Your task to perform on an android device: Open the calendar and show me this week's events? Image 0: 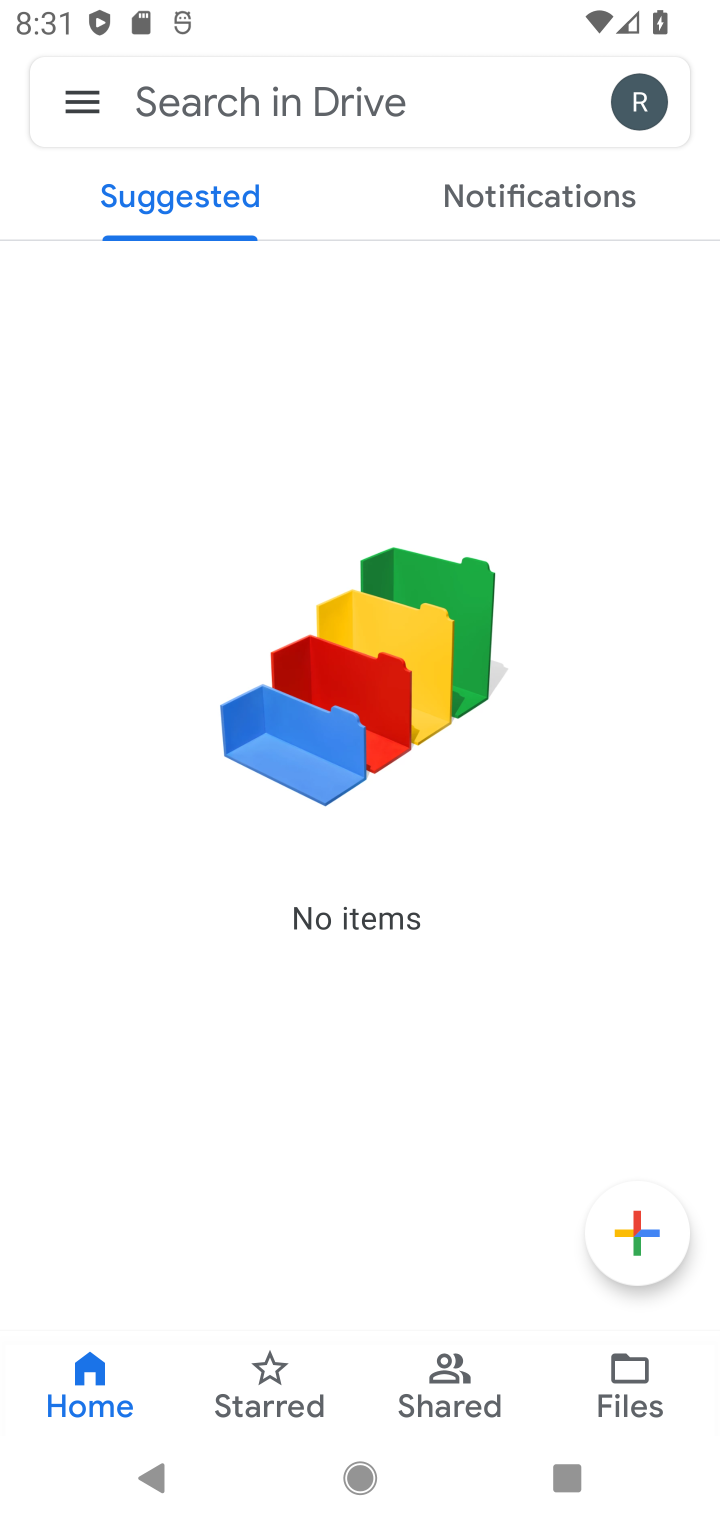
Step 0: press home button
Your task to perform on an android device: Open the calendar and show me this week's events? Image 1: 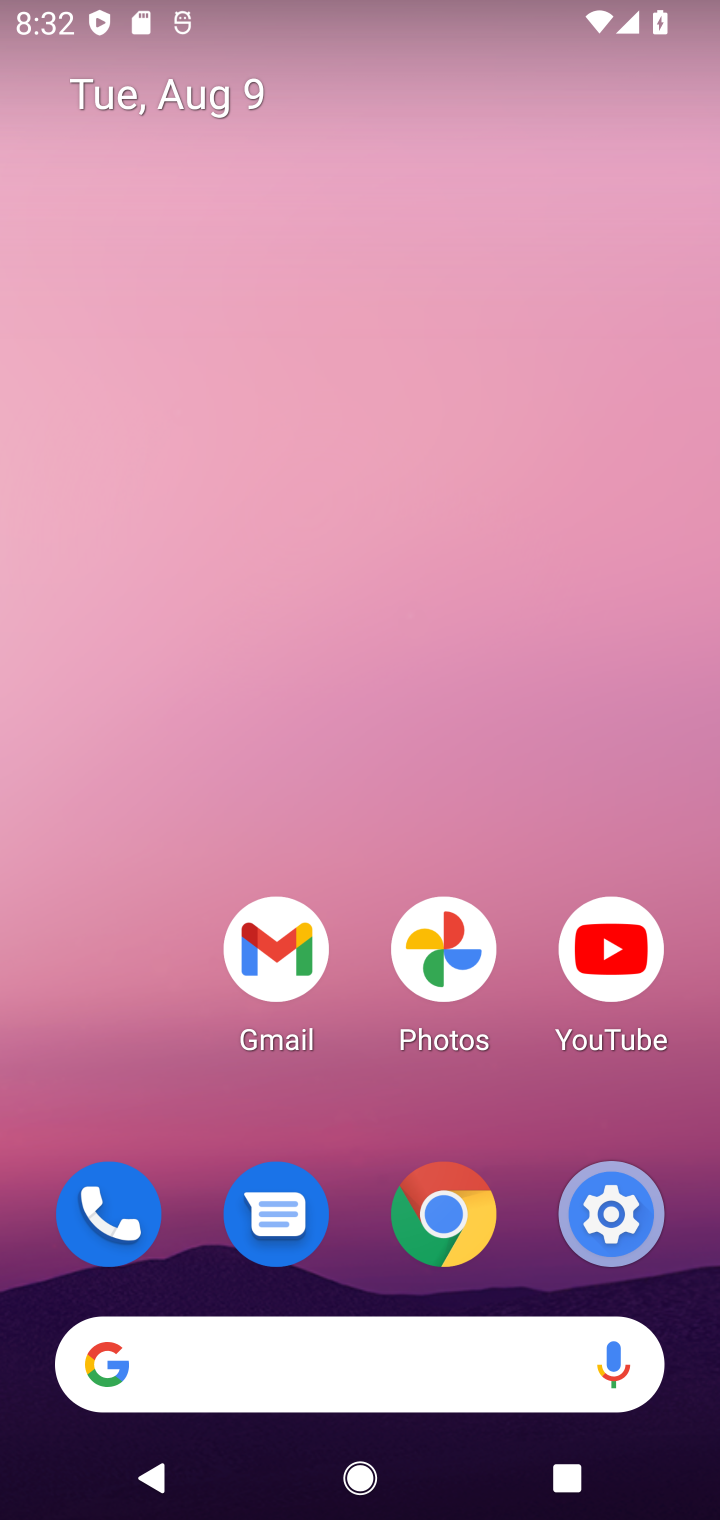
Step 1: drag from (81, 1341) to (325, 775)
Your task to perform on an android device: Open the calendar and show me this week's events? Image 2: 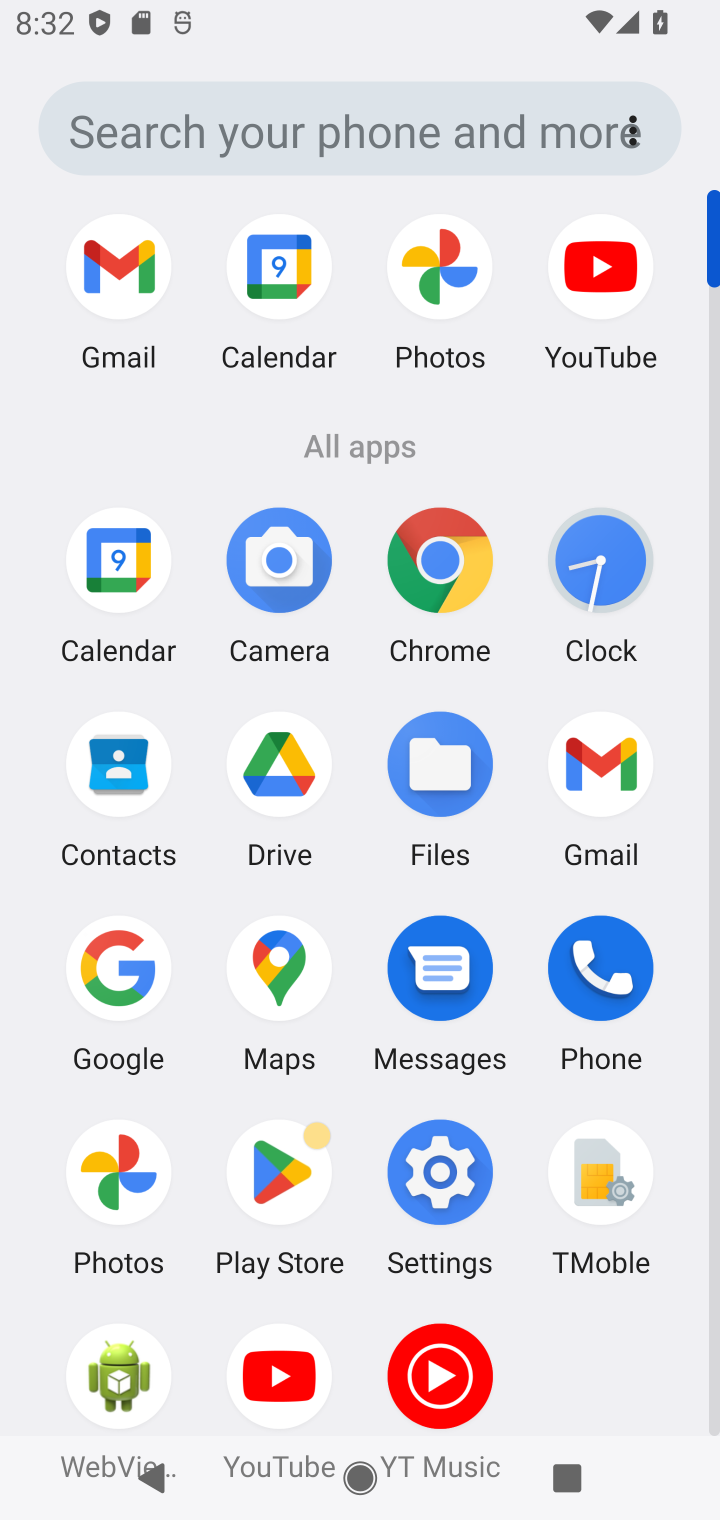
Step 2: click (92, 544)
Your task to perform on an android device: Open the calendar and show me this week's events? Image 3: 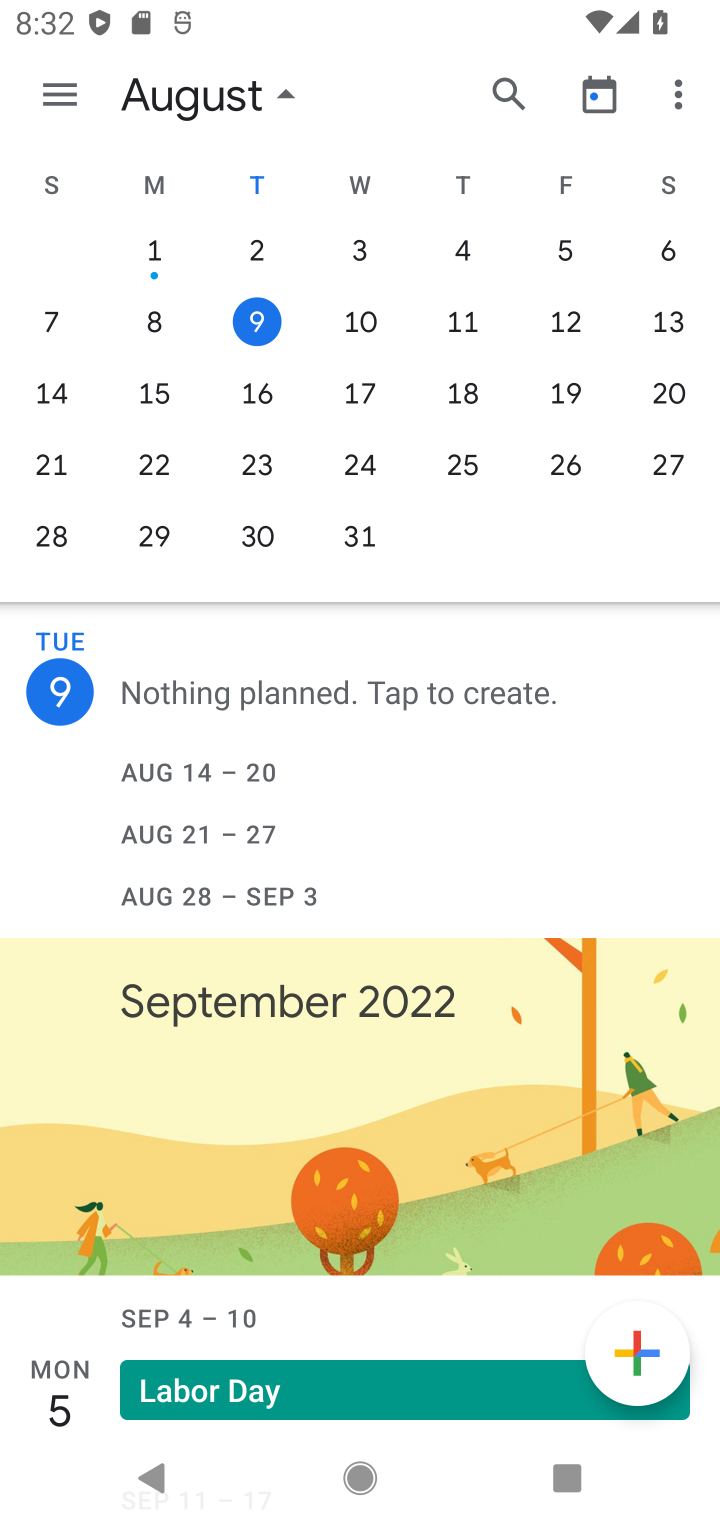
Step 3: task complete